Your task to perform on an android device: turn off sleep mode Image 0: 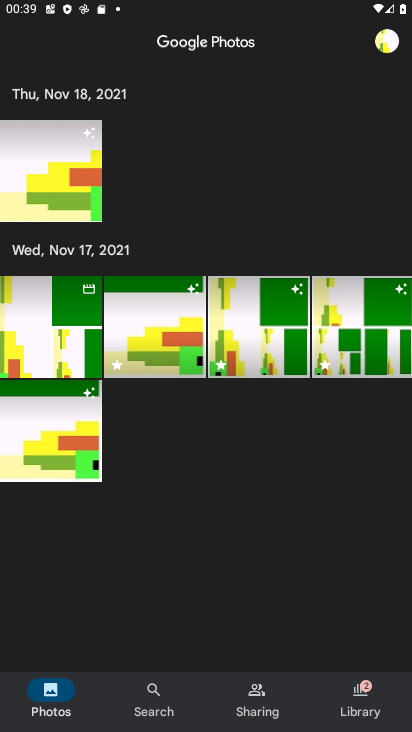
Step 0: press home button
Your task to perform on an android device: turn off sleep mode Image 1: 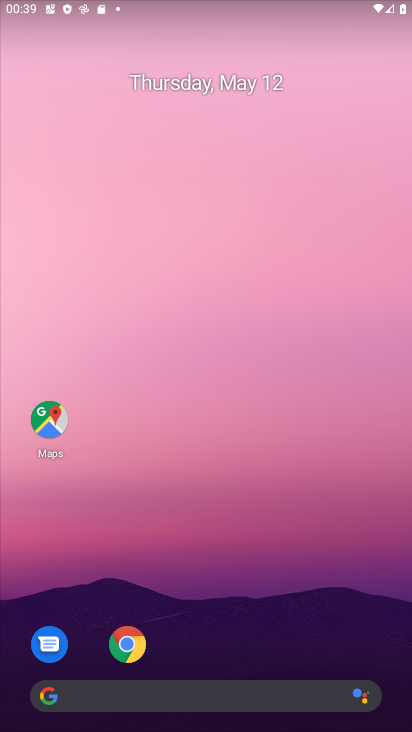
Step 1: drag from (281, 619) to (243, 182)
Your task to perform on an android device: turn off sleep mode Image 2: 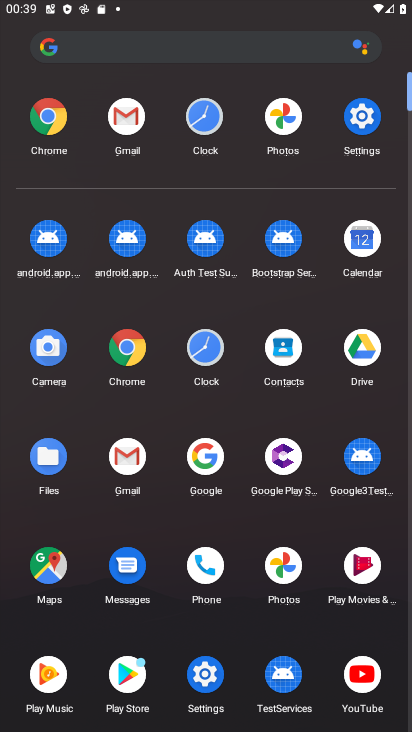
Step 2: click (362, 146)
Your task to perform on an android device: turn off sleep mode Image 3: 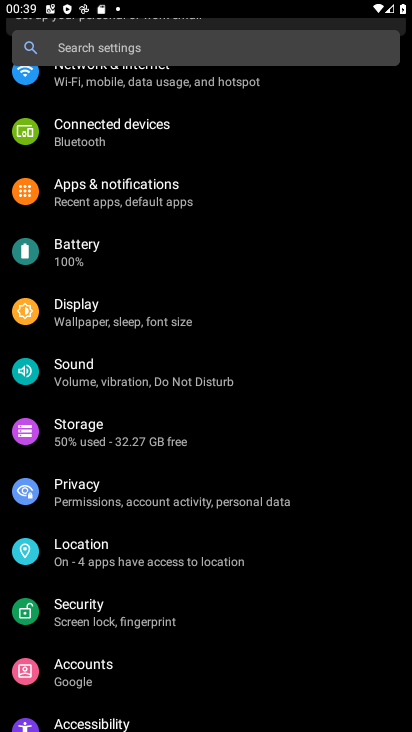
Step 3: drag from (305, 214) to (232, 509)
Your task to perform on an android device: turn off sleep mode Image 4: 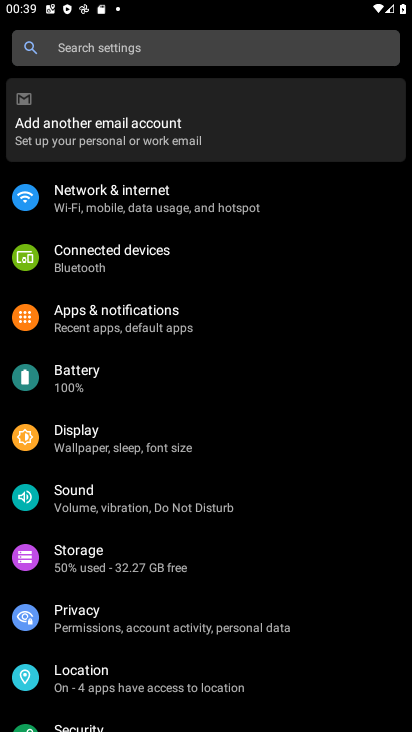
Step 4: click (214, 438)
Your task to perform on an android device: turn off sleep mode Image 5: 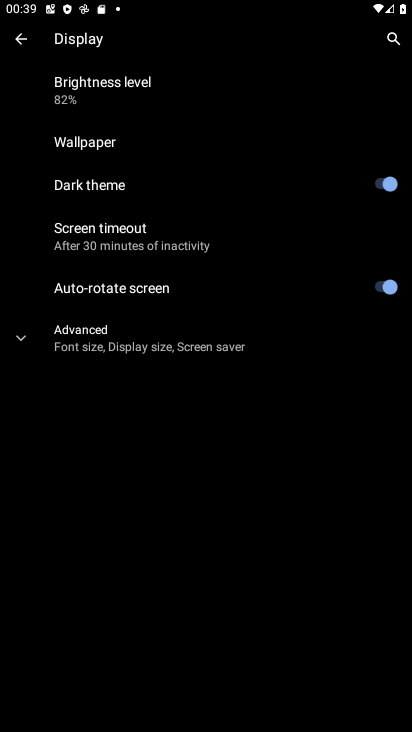
Step 5: drag from (194, 311) to (202, 188)
Your task to perform on an android device: turn off sleep mode Image 6: 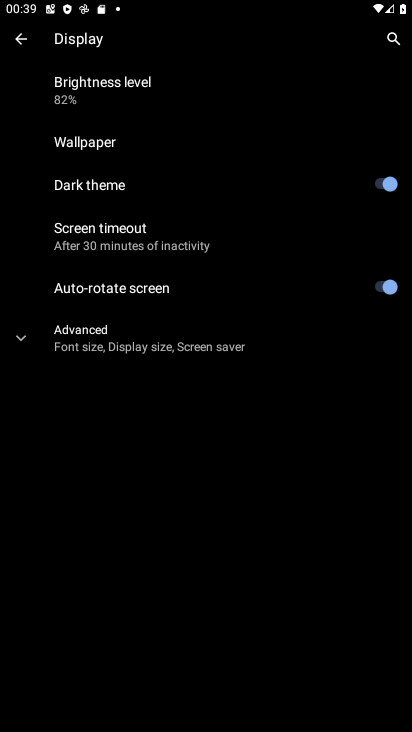
Step 6: click (184, 219)
Your task to perform on an android device: turn off sleep mode Image 7: 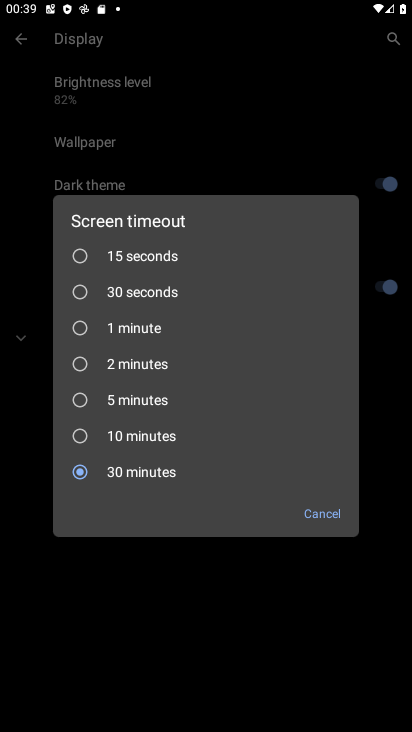
Step 7: click (179, 243)
Your task to perform on an android device: turn off sleep mode Image 8: 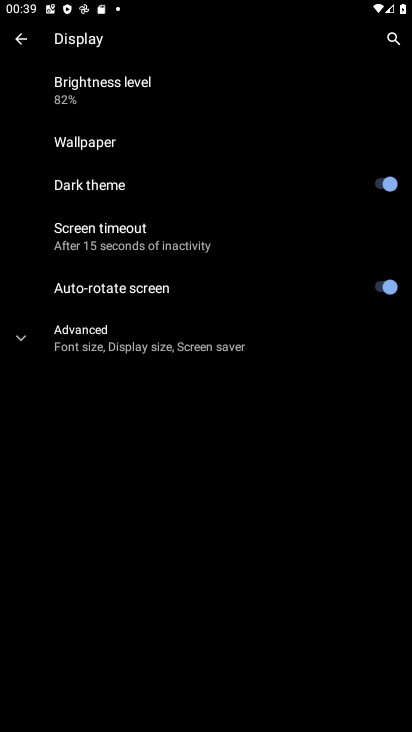
Step 8: task complete